Your task to perform on an android device: Play the last video I watched on Youtube Image 0: 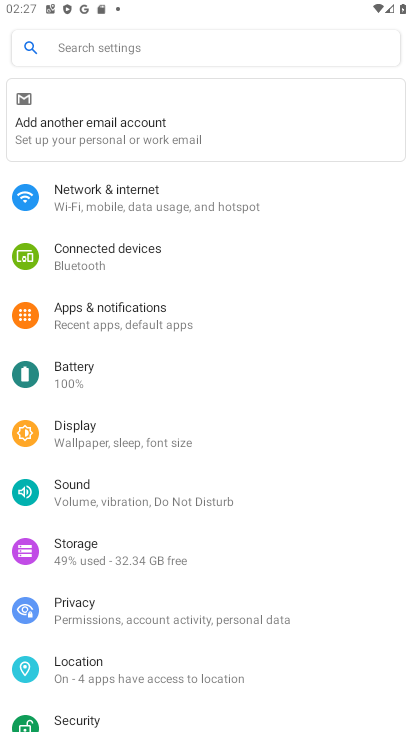
Step 0: press home button
Your task to perform on an android device: Play the last video I watched on Youtube Image 1: 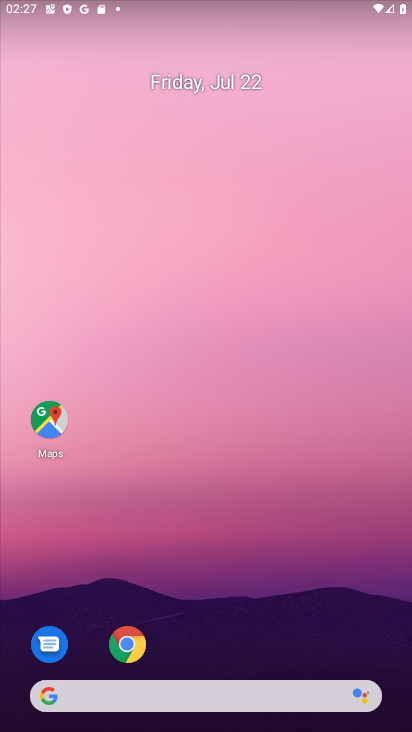
Step 1: drag from (226, 536) to (132, 6)
Your task to perform on an android device: Play the last video I watched on Youtube Image 2: 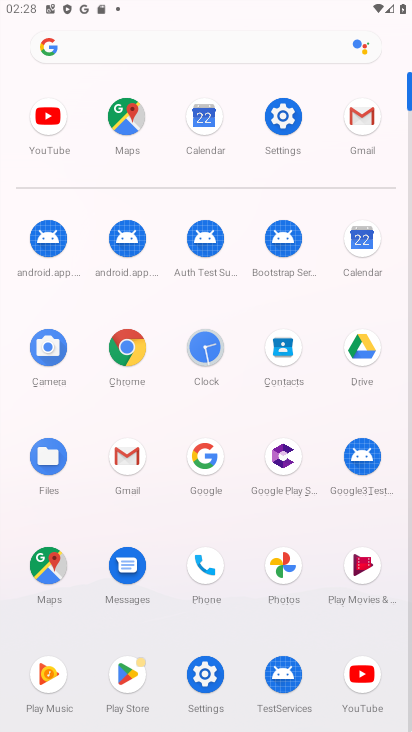
Step 2: click (360, 680)
Your task to perform on an android device: Play the last video I watched on Youtube Image 3: 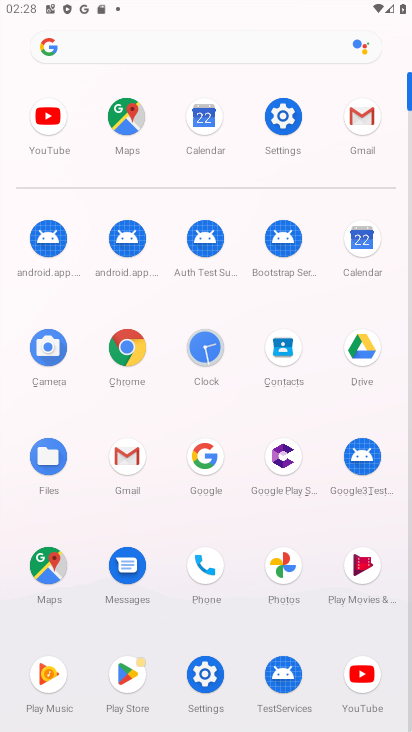
Step 3: click (360, 680)
Your task to perform on an android device: Play the last video I watched on Youtube Image 4: 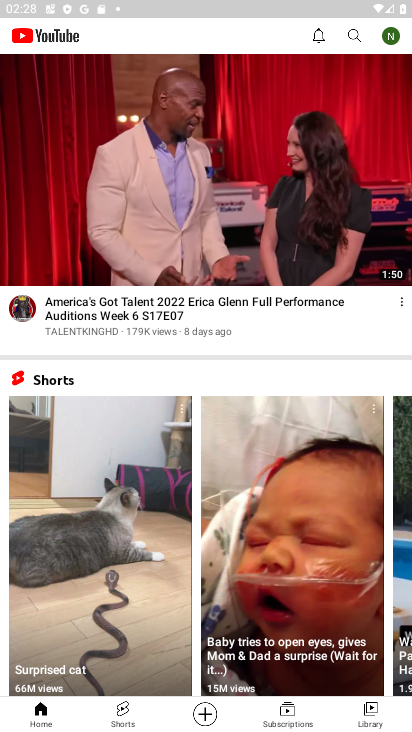
Step 4: click (381, 708)
Your task to perform on an android device: Play the last video I watched on Youtube Image 5: 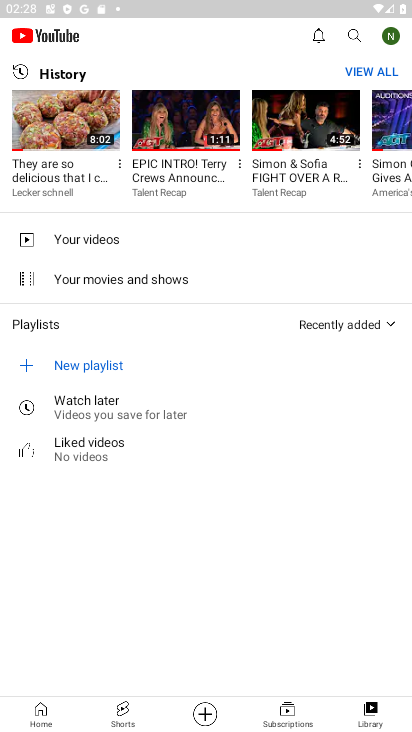
Step 5: click (54, 121)
Your task to perform on an android device: Play the last video I watched on Youtube Image 6: 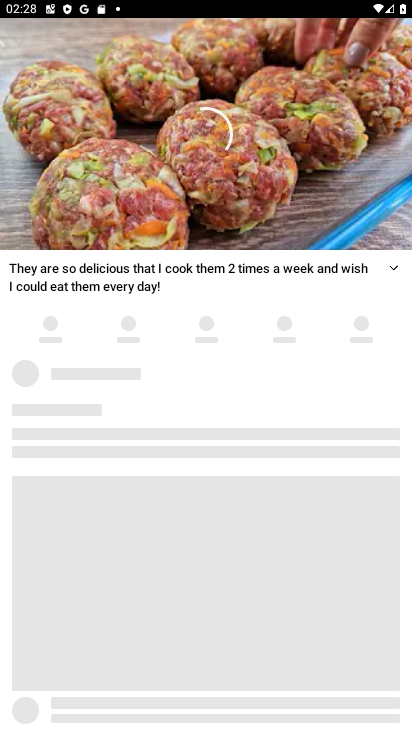
Step 6: task complete